Your task to perform on an android device: turn on javascript in the chrome app Image 0: 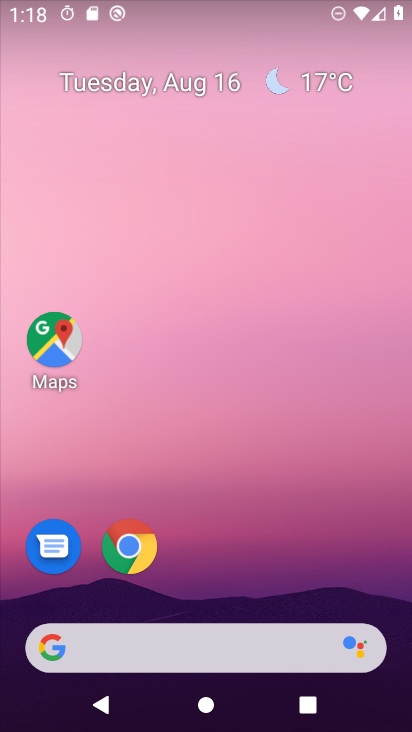
Step 0: click (129, 543)
Your task to perform on an android device: turn on javascript in the chrome app Image 1: 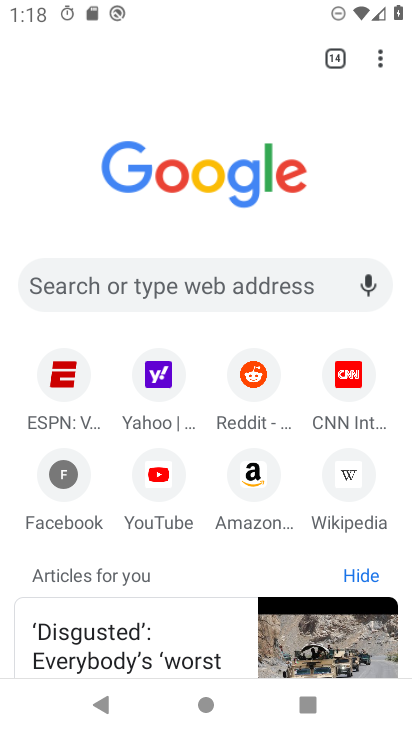
Step 1: click (380, 63)
Your task to perform on an android device: turn on javascript in the chrome app Image 2: 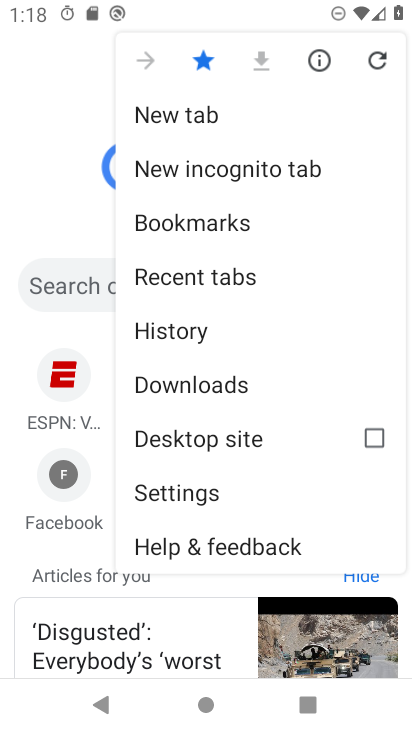
Step 2: click (175, 493)
Your task to perform on an android device: turn on javascript in the chrome app Image 3: 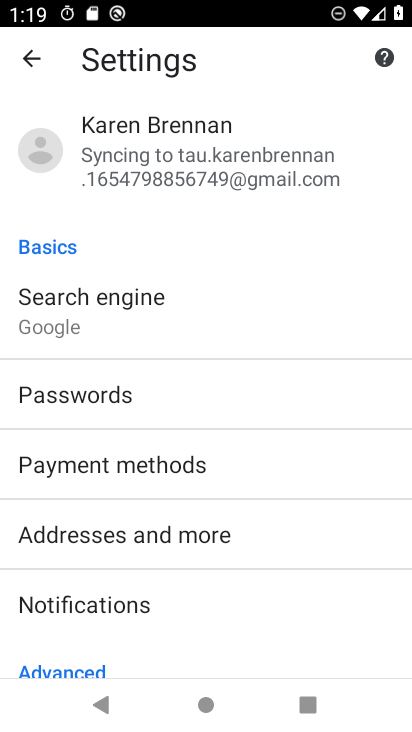
Step 3: drag from (95, 631) to (74, 217)
Your task to perform on an android device: turn on javascript in the chrome app Image 4: 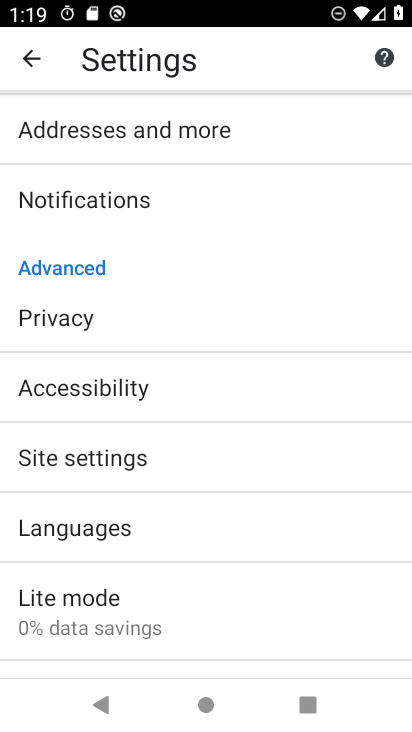
Step 4: click (98, 459)
Your task to perform on an android device: turn on javascript in the chrome app Image 5: 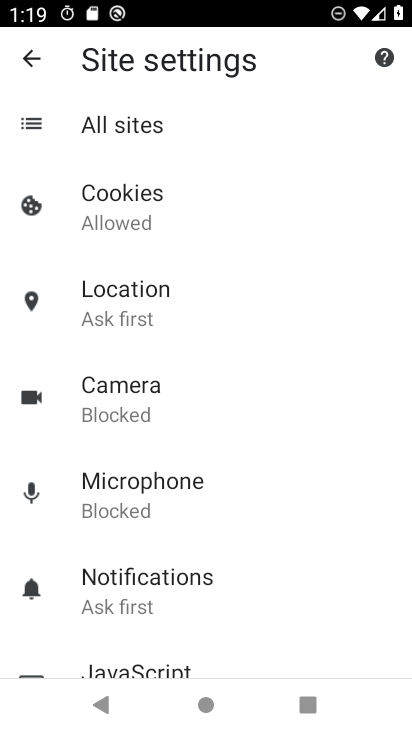
Step 5: click (157, 668)
Your task to perform on an android device: turn on javascript in the chrome app Image 6: 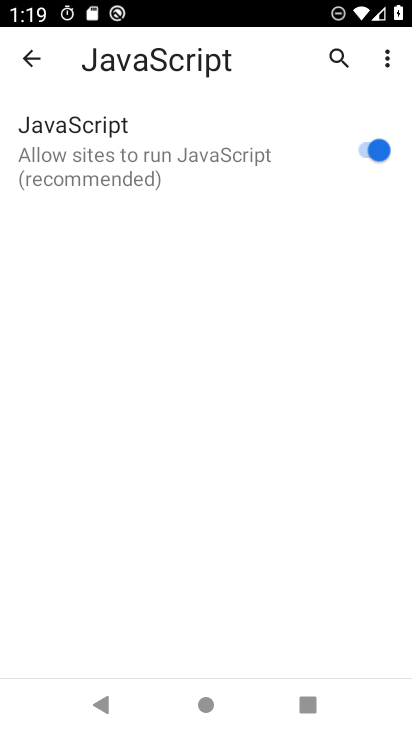
Step 6: task complete